Your task to perform on an android device: check out phone information Image 0: 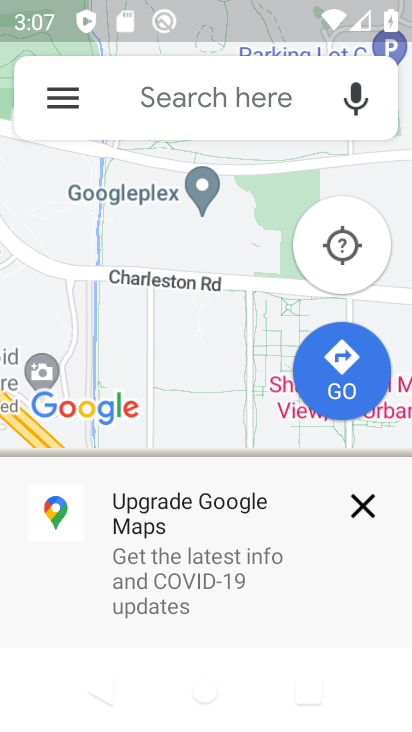
Step 0: press home button
Your task to perform on an android device: check out phone information Image 1: 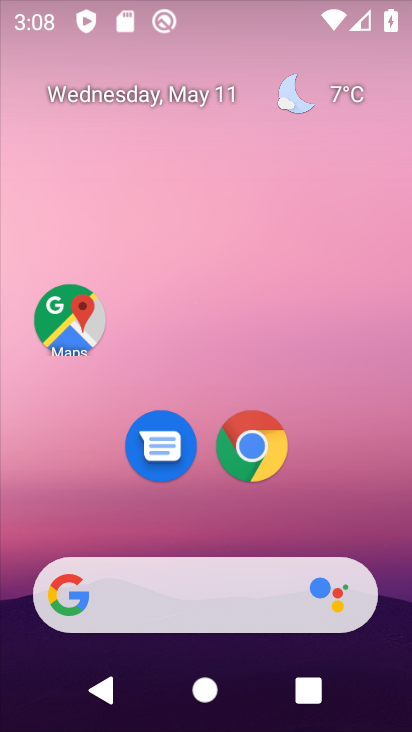
Step 1: drag from (234, 583) to (59, 55)
Your task to perform on an android device: check out phone information Image 2: 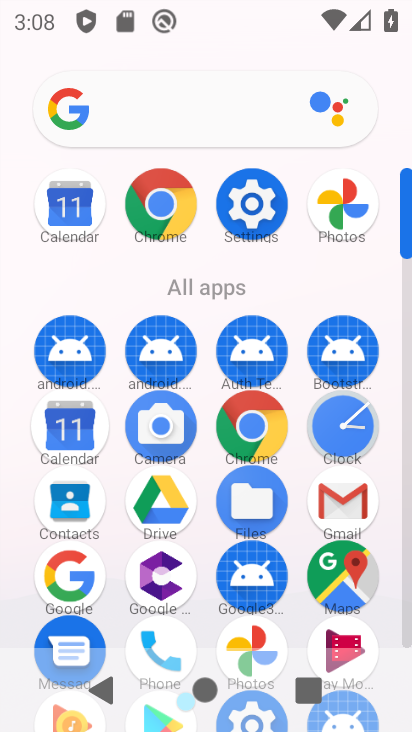
Step 2: click (244, 217)
Your task to perform on an android device: check out phone information Image 3: 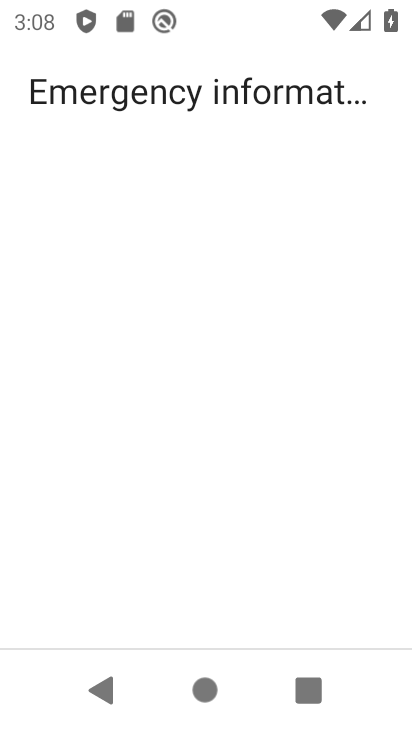
Step 3: drag from (240, 503) to (213, 183)
Your task to perform on an android device: check out phone information Image 4: 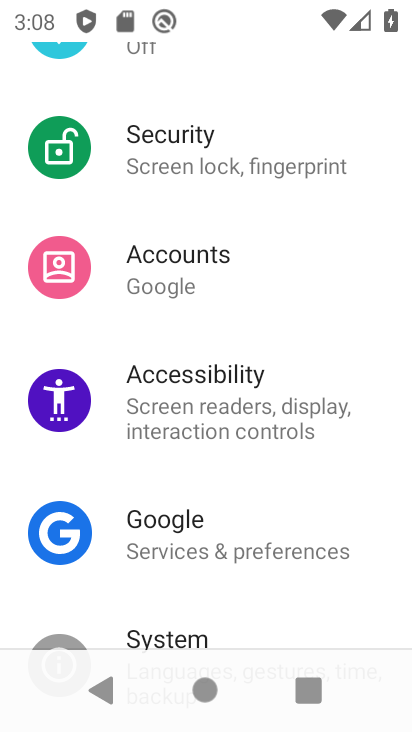
Step 4: drag from (178, 445) to (219, 152)
Your task to perform on an android device: check out phone information Image 5: 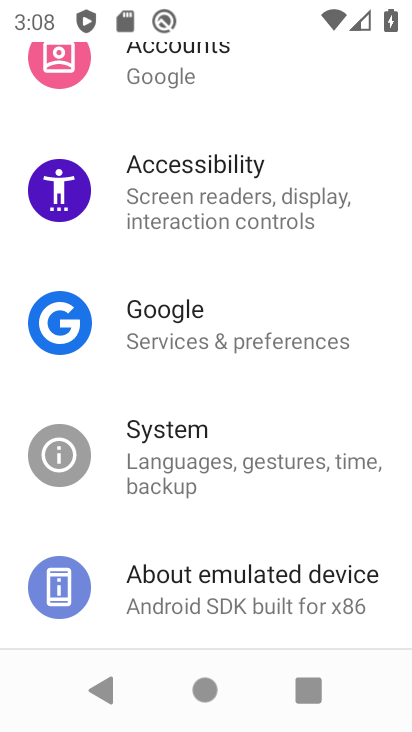
Step 5: drag from (237, 528) to (132, 96)
Your task to perform on an android device: check out phone information Image 6: 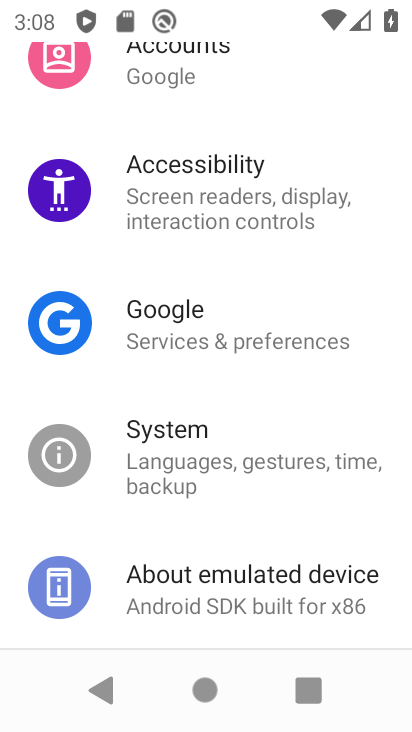
Step 6: click (221, 606)
Your task to perform on an android device: check out phone information Image 7: 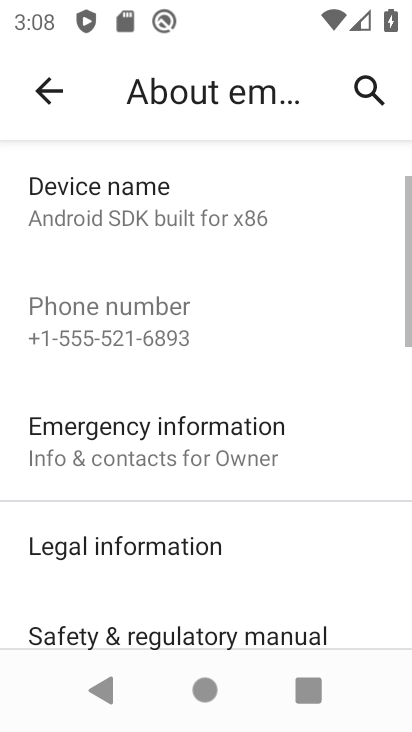
Step 7: click (170, 438)
Your task to perform on an android device: check out phone information Image 8: 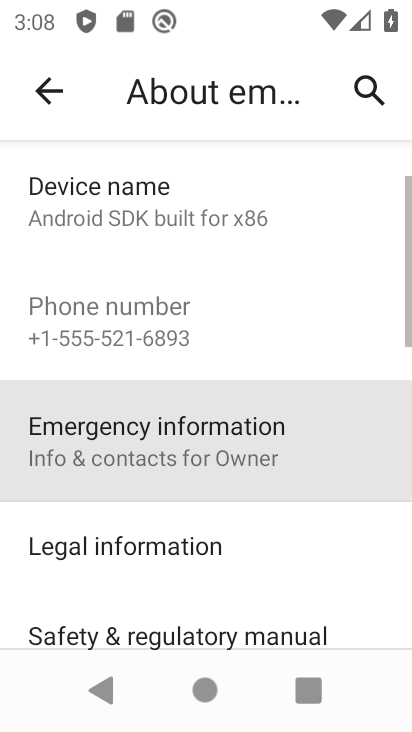
Step 8: click (171, 439)
Your task to perform on an android device: check out phone information Image 9: 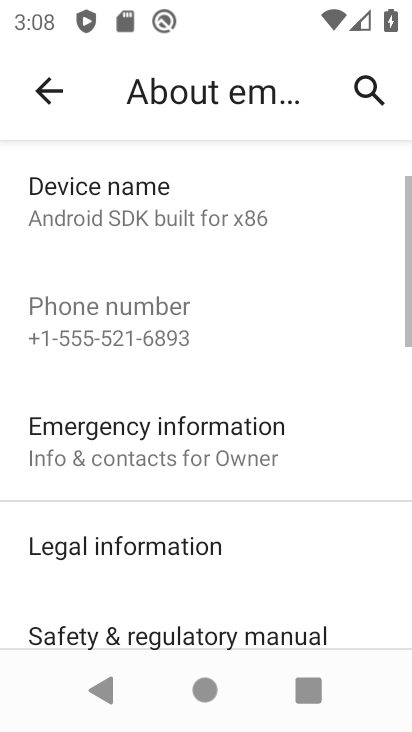
Step 9: click (174, 440)
Your task to perform on an android device: check out phone information Image 10: 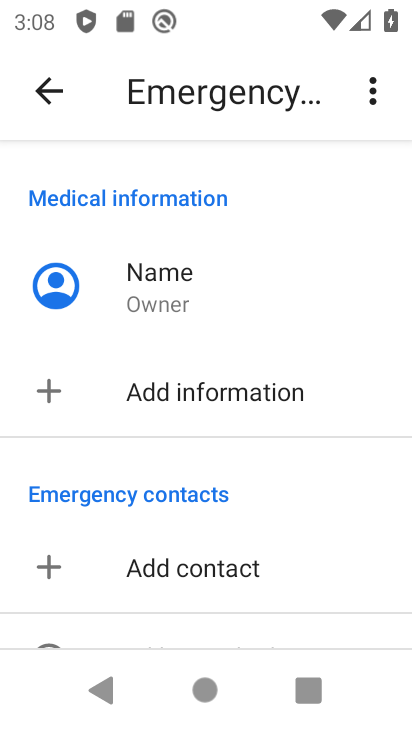
Step 10: task complete